Your task to perform on an android device: Go to battery settings Image 0: 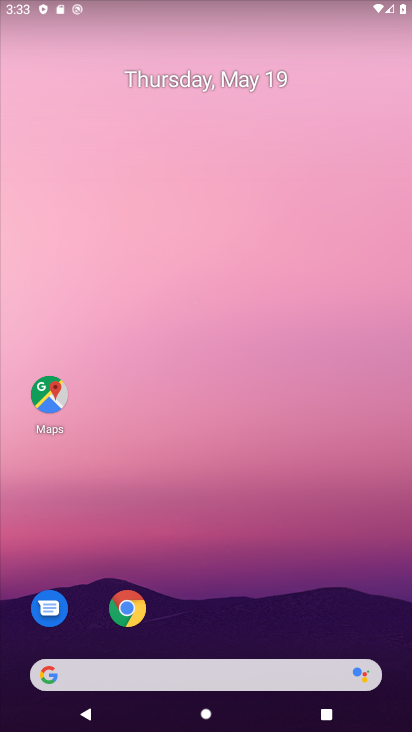
Step 0: drag from (218, 698) to (219, 198)
Your task to perform on an android device: Go to battery settings Image 1: 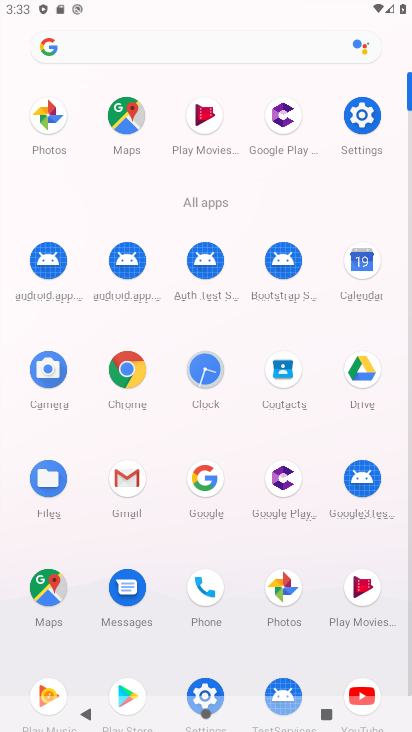
Step 1: click (361, 118)
Your task to perform on an android device: Go to battery settings Image 2: 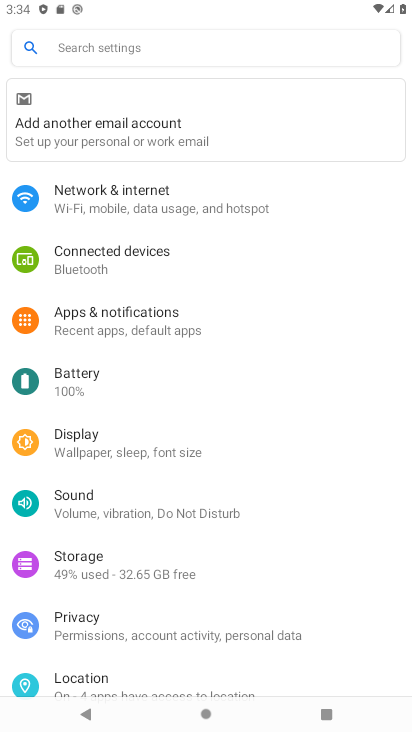
Step 2: click (68, 381)
Your task to perform on an android device: Go to battery settings Image 3: 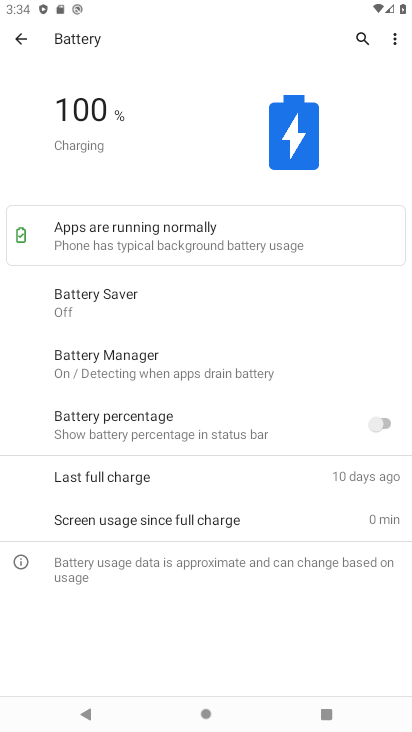
Step 3: task complete